Your task to perform on an android device: turn on wifi Image 0: 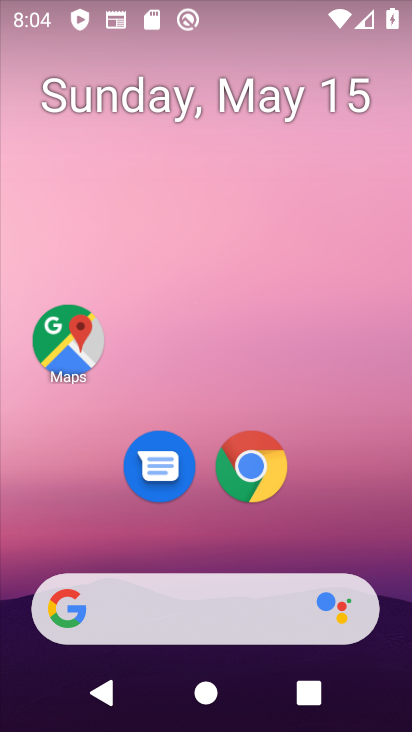
Step 0: drag from (210, 554) to (317, 23)
Your task to perform on an android device: turn on wifi Image 1: 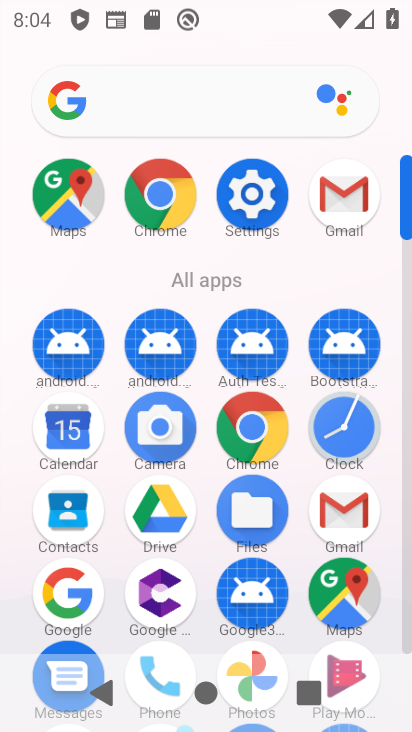
Step 1: click (253, 197)
Your task to perform on an android device: turn on wifi Image 2: 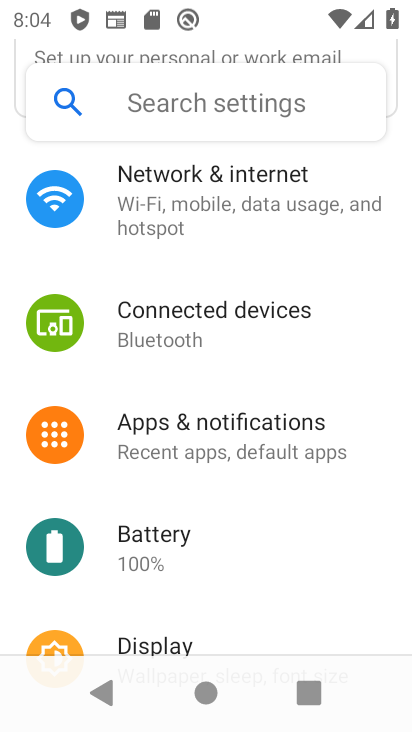
Step 2: click (262, 180)
Your task to perform on an android device: turn on wifi Image 3: 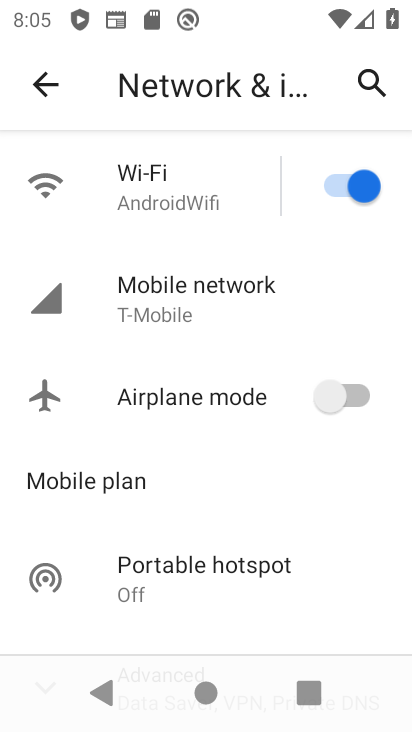
Step 3: click (189, 195)
Your task to perform on an android device: turn on wifi Image 4: 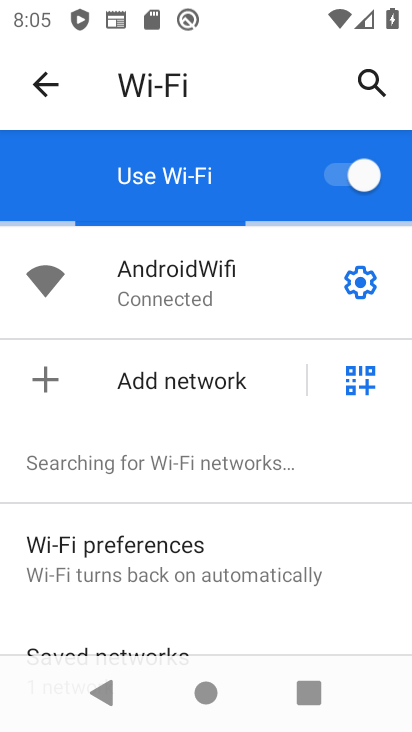
Step 4: task complete